Your task to perform on an android device: empty trash in the gmail app Image 0: 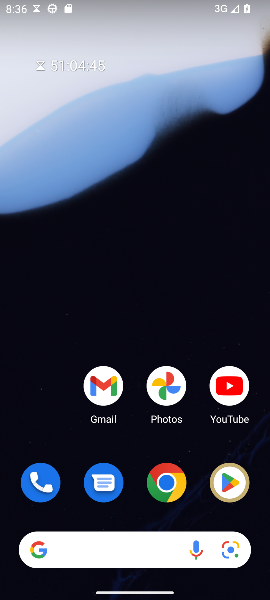
Step 0: drag from (145, 541) to (12, 51)
Your task to perform on an android device: empty trash in the gmail app Image 1: 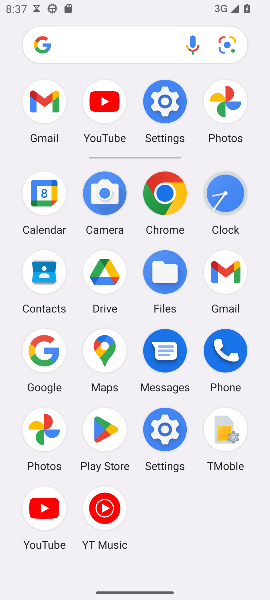
Step 1: click (33, 112)
Your task to perform on an android device: empty trash in the gmail app Image 2: 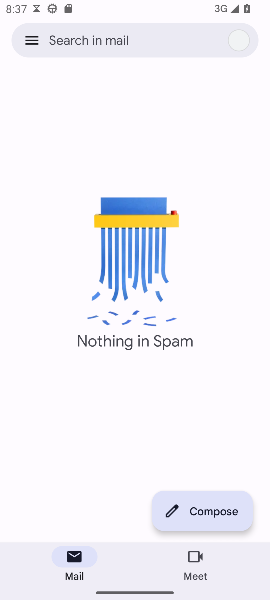
Step 2: click (25, 48)
Your task to perform on an android device: empty trash in the gmail app Image 3: 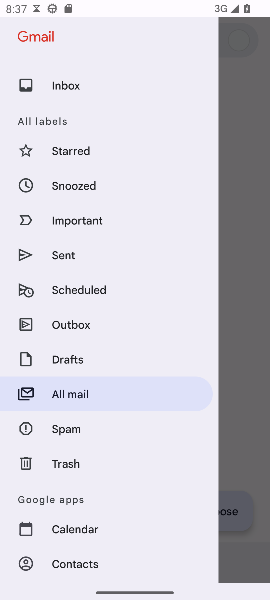
Step 3: click (68, 465)
Your task to perform on an android device: empty trash in the gmail app Image 4: 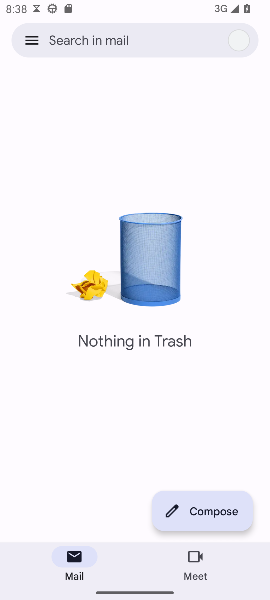
Step 4: task complete